Your task to perform on an android device: Go to eBay Image 0: 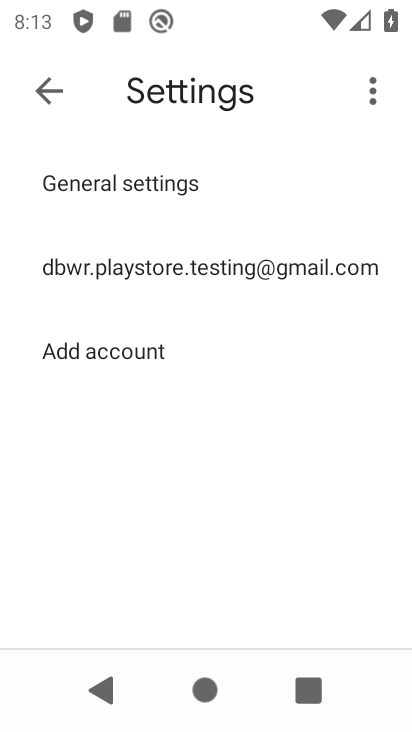
Step 0: press home button
Your task to perform on an android device: Go to eBay Image 1: 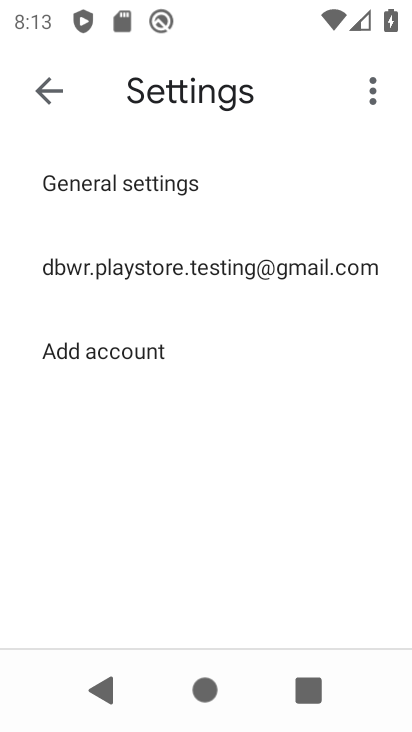
Step 1: press home button
Your task to perform on an android device: Go to eBay Image 2: 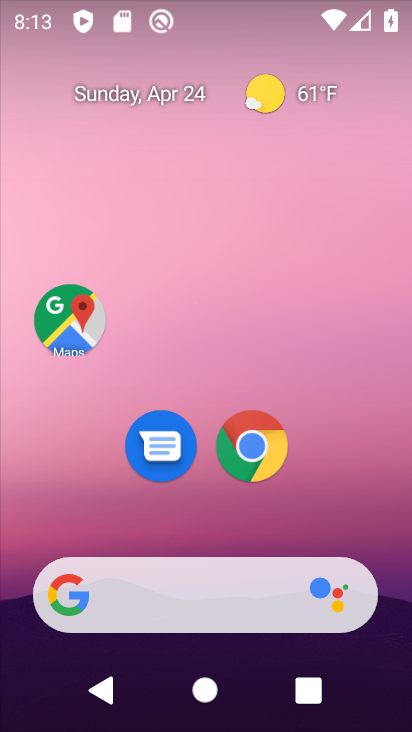
Step 2: drag from (230, 611) to (243, 72)
Your task to perform on an android device: Go to eBay Image 3: 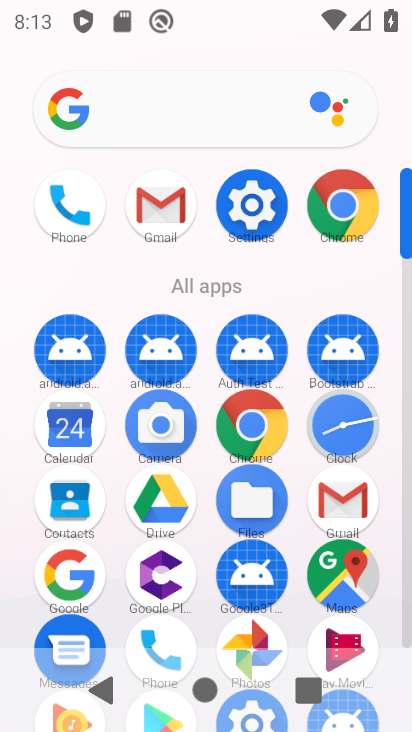
Step 3: click (351, 207)
Your task to perform on an android device: Go to eBay Image 4: 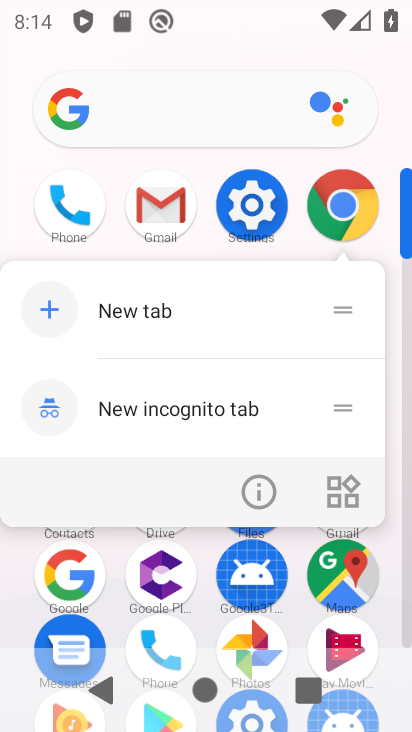
Step 4: click (351, 207)
Your task to perform on an android device: Go to eBay Image 5: 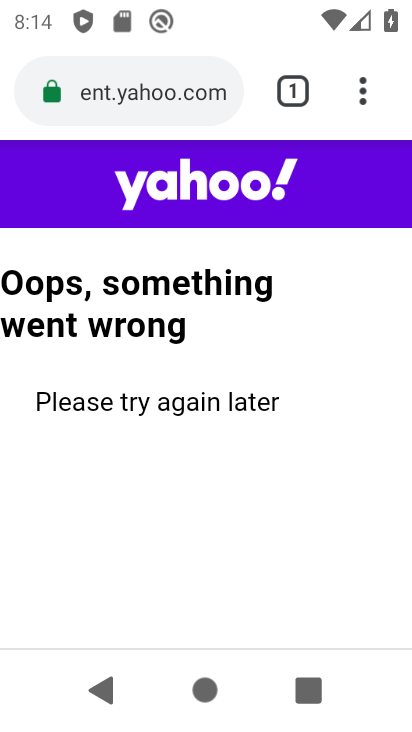
Step 5: click (207, 77)
Your task to perform on an android device: Go to eBay Image 6: 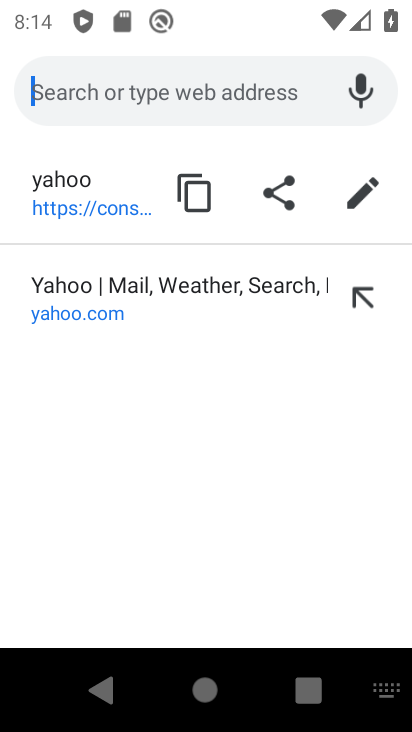
Step 6: type "ebvay.com"
Your task to perform on an android device: Go to eBay Image 7: 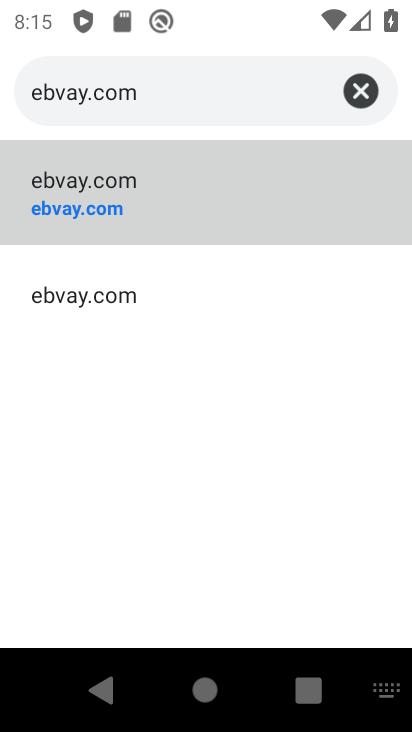
Step 7: click (235, 135)
Your task to perform on an android device: Go to eBay Image 8: 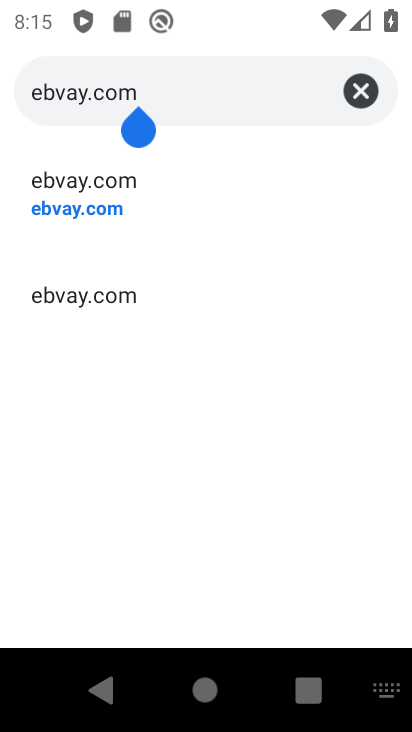
Step 8: click (213, 149)
Your task to perform on an android device: Go to eBay Image 9: 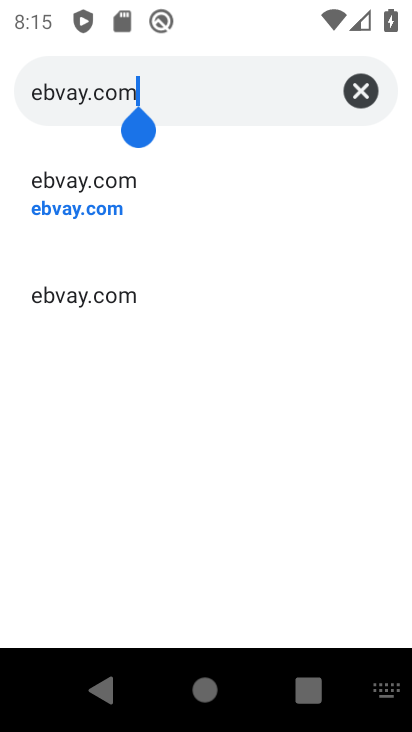
Step 9: click (211, 195)
Your task to perform on an android device: Go to eBay Image 10: 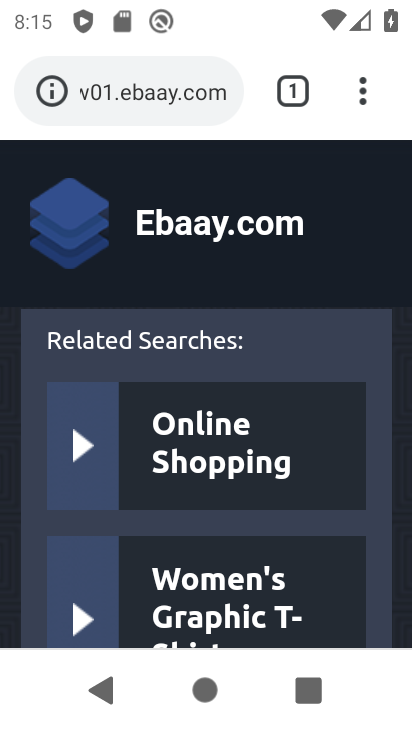
Step 10: task complete